Your task to perform on an android device: Go to Maps Image 0: 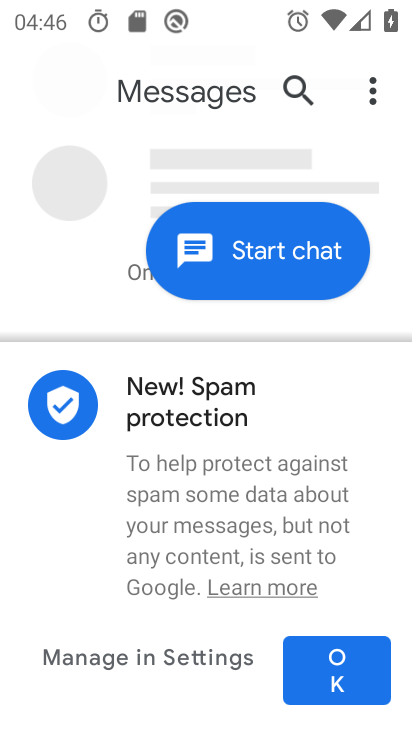
Step 0: press back button
Your task to perform on an android device: Go to Maps Image 1: 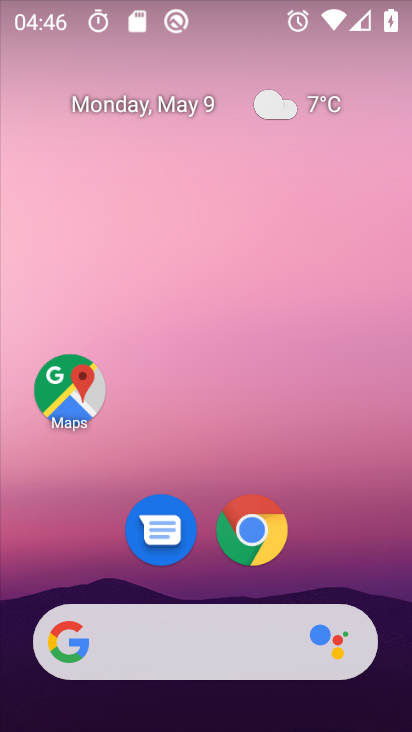
Step 1: click (66, 391)
Your task to perform on an android device: Go to Maps Image 2: 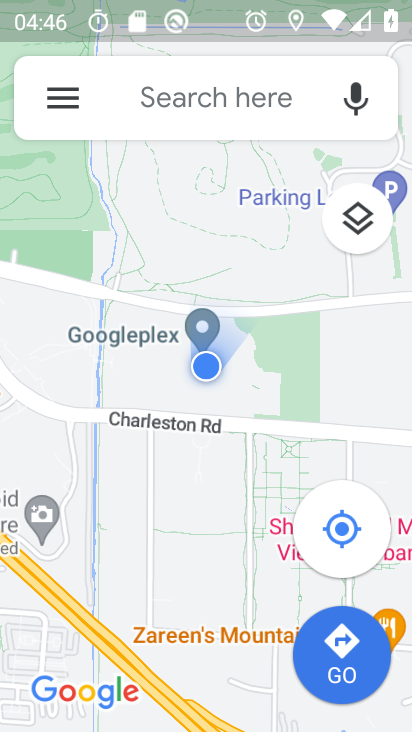
Step 2: task complete